Your task to perform on an android device: Open eBay Image 0: 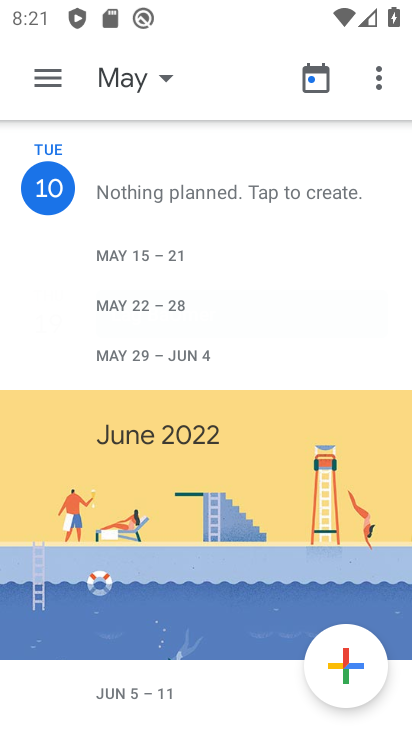
Step 0: press back button
Your task to perform on an android device: Open eBay Image 1: 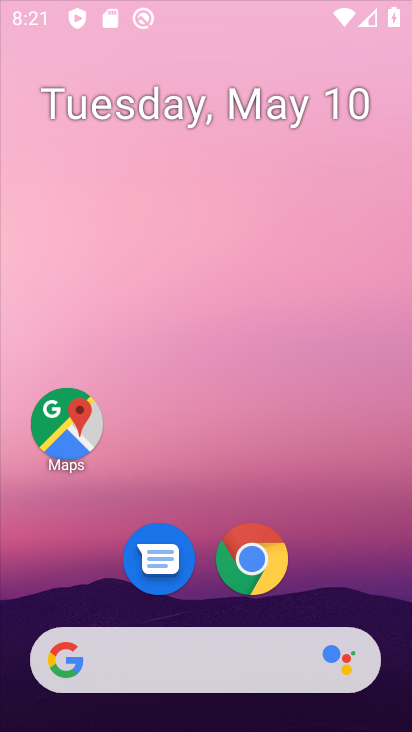
Step 1: press back button
Your task to perform on an android device: Open eBay Image 2: 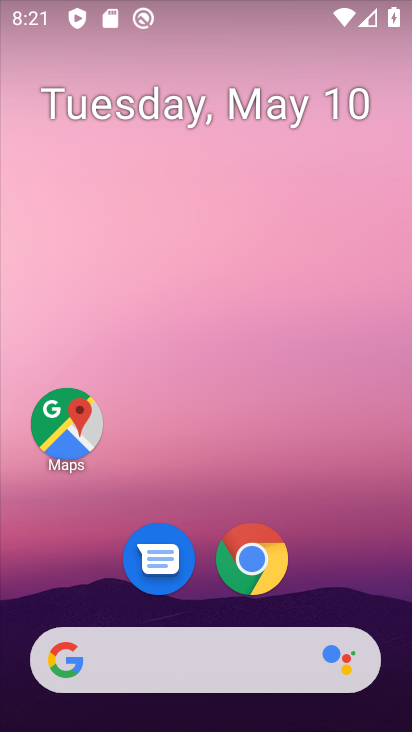
Step 2: click (245, 551)
Your task to perform on an android device: Open eBay Image 3: 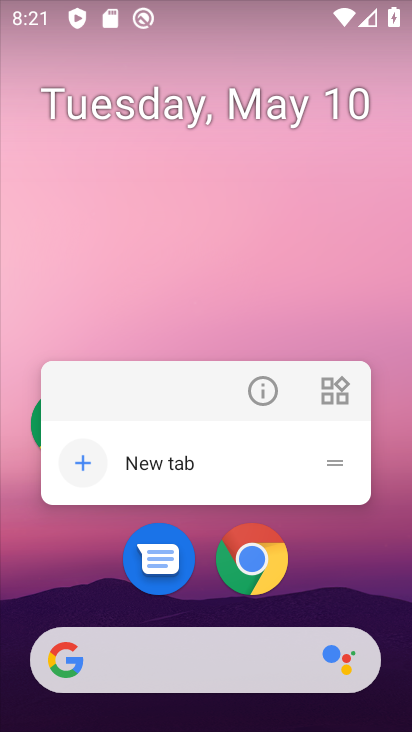
Step 3: click (248, 555)
Your task to perform on an android device: Open eBay Image 4: 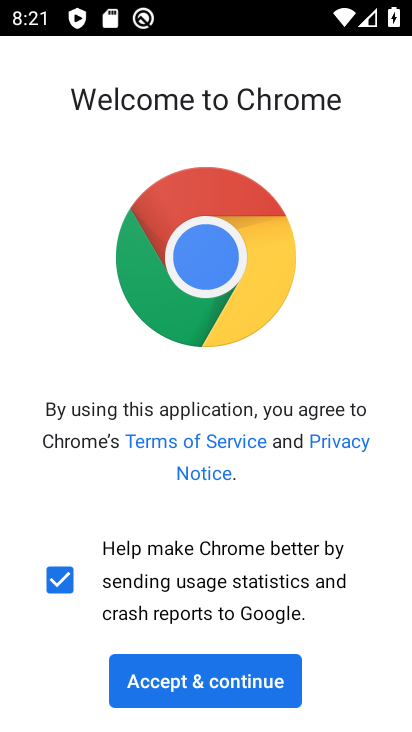
Step 4: click (256, 665)
Your task to perform on an android device: Open eBay Image 5: 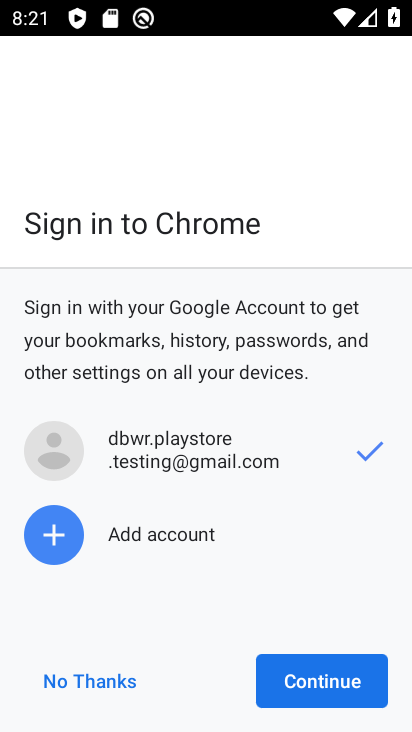
Step 5: click (325, 677)
Your task to perform on an android device: Open eBay Image 6: 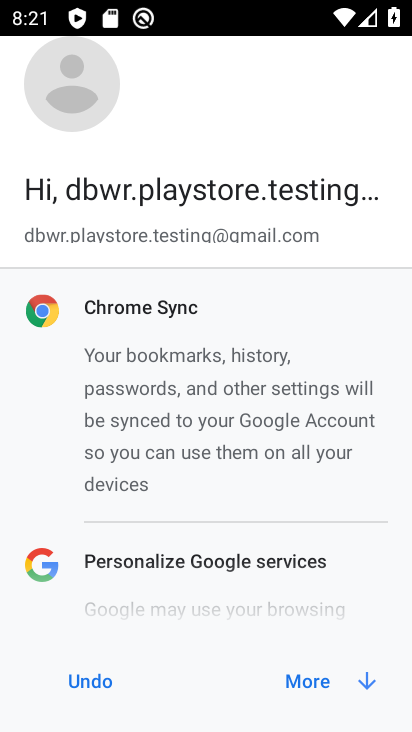
Step 6: click (308, 680)
Your task to perform on an android device: Open eBay Image 7: 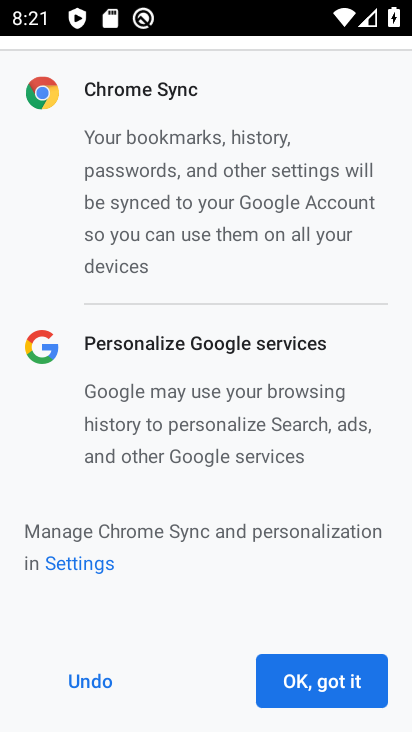
Step 7: click (308, 680)
Your task to perform on an android device: Open eBay Image 8: 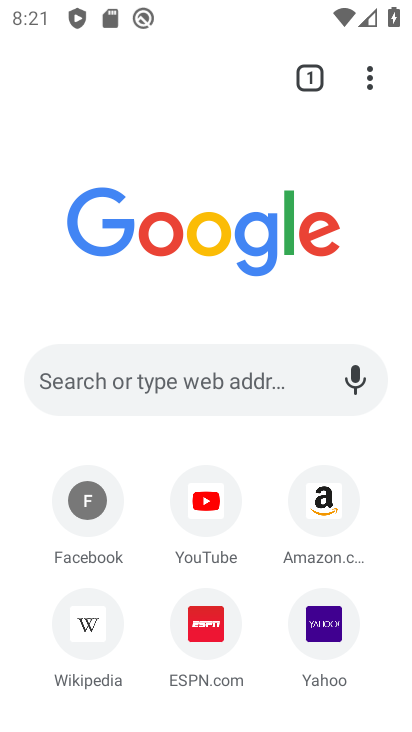
Step 8: drag from (12, 628) to (24, 409)
Your task to perform on an android device: Open eBay Image 9: 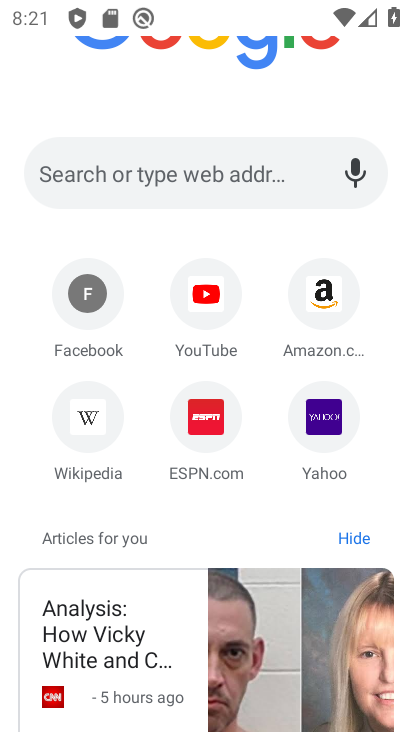
Step 9: click (110, 173)
Your task to perform on an android device: Open eBay Image 10: 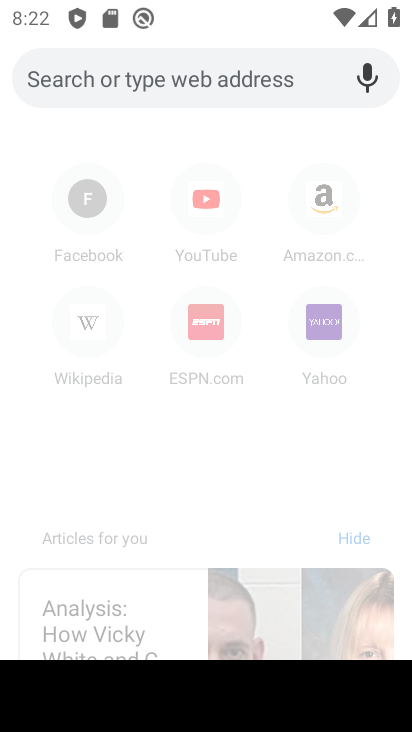
Step 10: type "eBay"
Your task to perform on an android device: Open eBay Image 11: 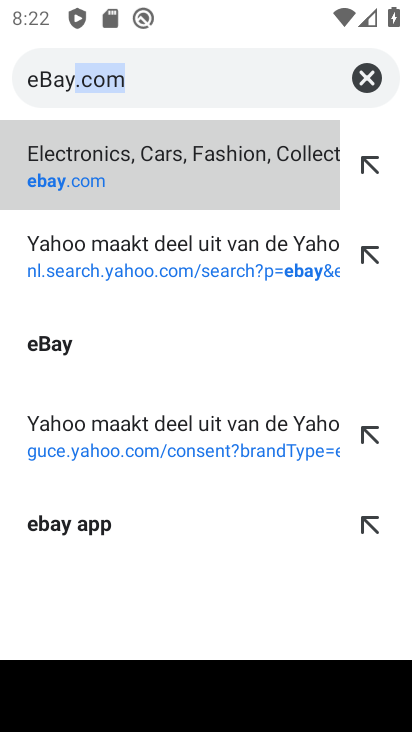
Step 11: type ""
Your task to perform on an android device: Open eBay Image 12: 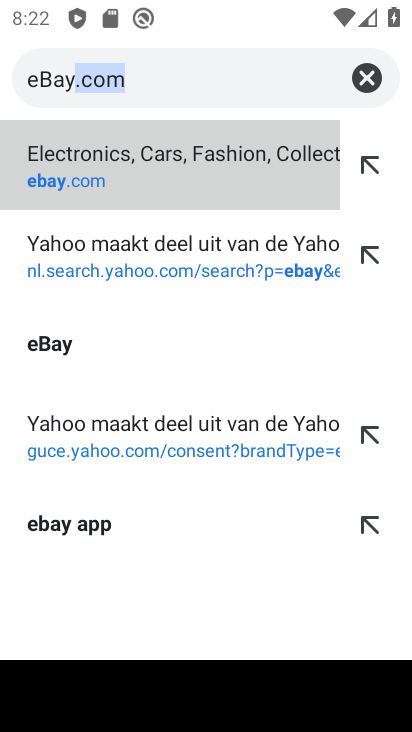
Step 12: click (144, 179)
Your task to perform on an android device: Open eBay Image 13: 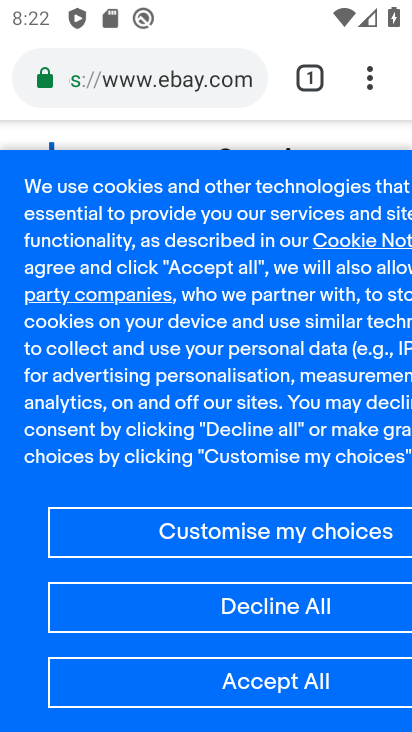
Step 13: click (228, 680)
Your task to perform on an android device: Open eBay Image 14: 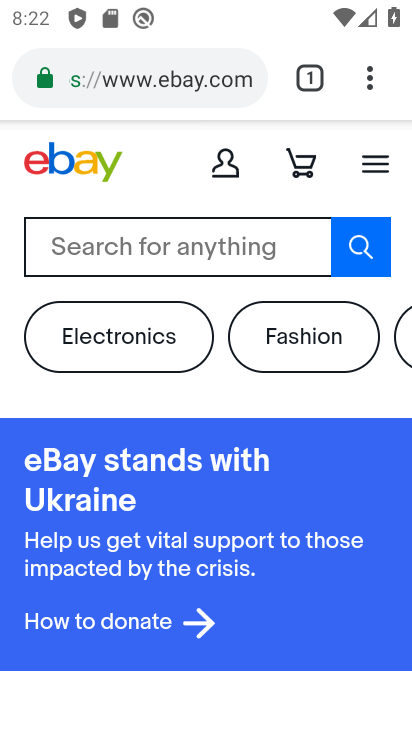
Step 14: task complete